Your task to perform on an android device: Open battery settings Image 0: 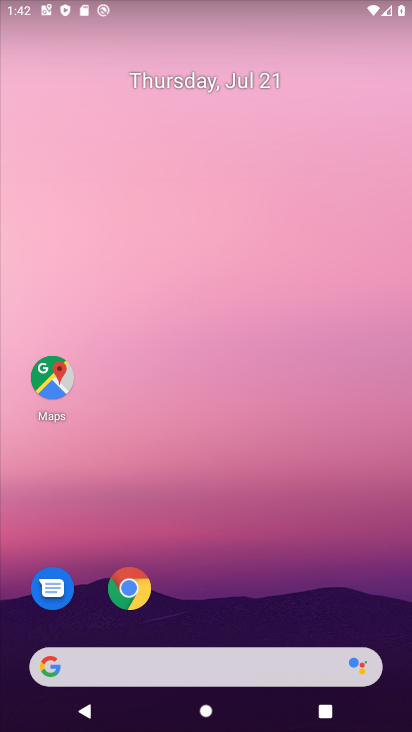
Step 0: drag from (222, 635) to (220, 146)
Your task to perform on an android device: Open battery settings Image 1: 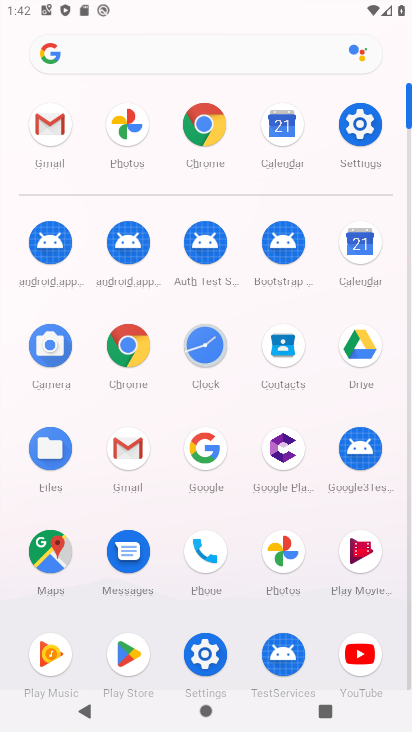
Step 1: click (207, 650)
Your task to perform on an android device: Open battery settings Image 2: 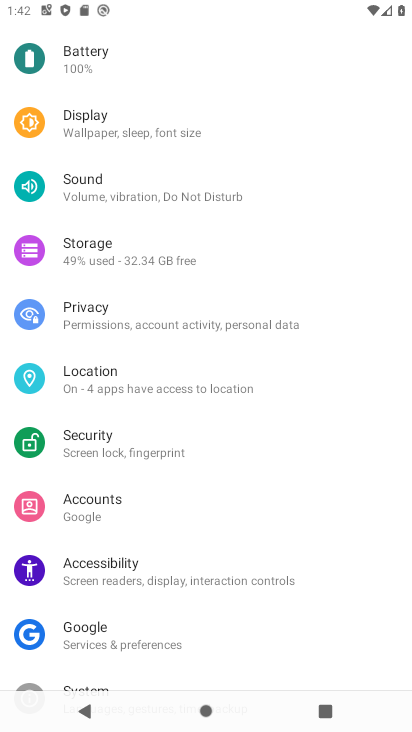
Step 2: click (95, 40)
Your task to perform on an android device: Open battery settings Image 3: 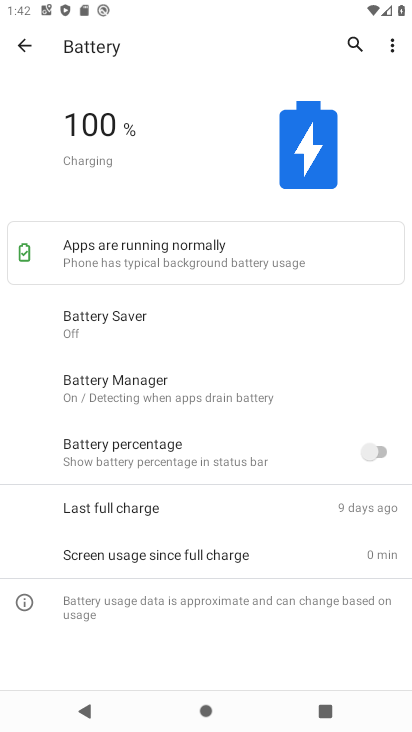
Step 3: task complete